Your task to perform on an android device: Open calendar and show me the fourth week of next month Image 0: 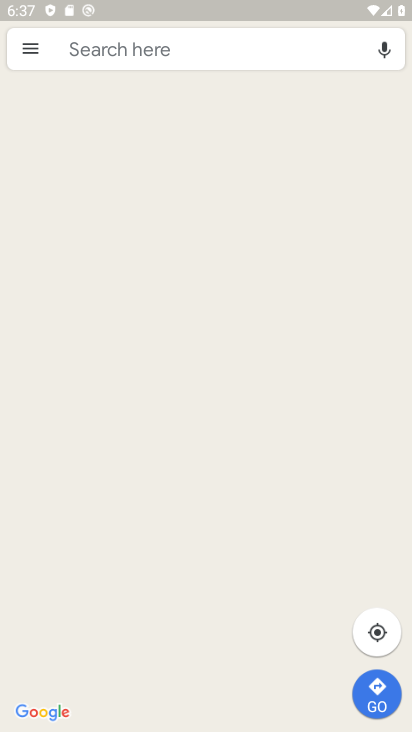
Step 0: press home button
Your task to perform on an android device: Open calendar and show me the fourth week of next month Image 1: 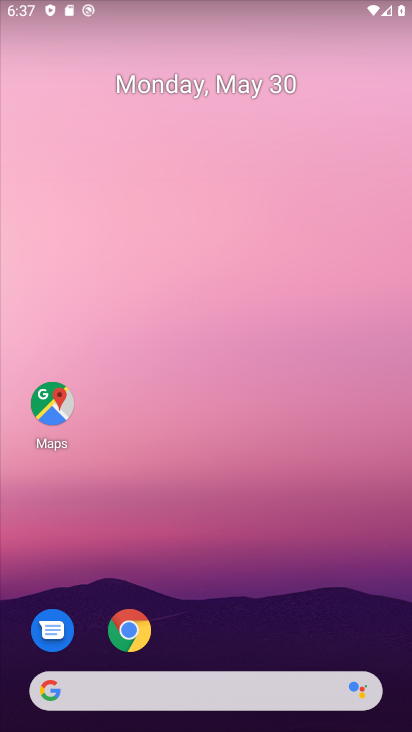
Step 1: drag from (311, 601) to (272, 38)
Your task to perform on an android device: Open calendar and show me the fourth week of next month Image 2: 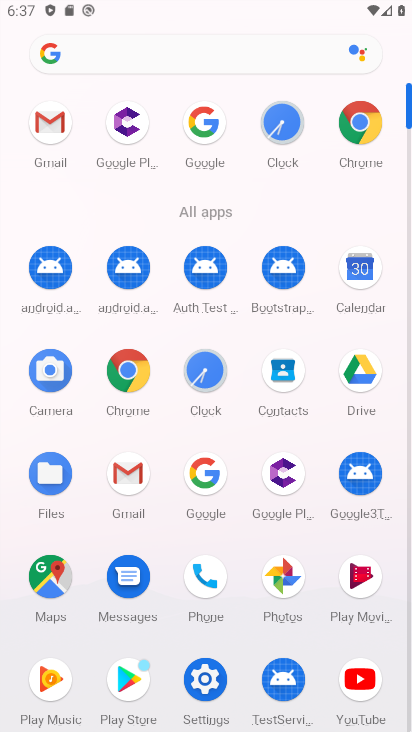
Step 2: click (348, 264)
Your task to perform on an android device: Open calendar and show me the fourth week of next month Image 3: 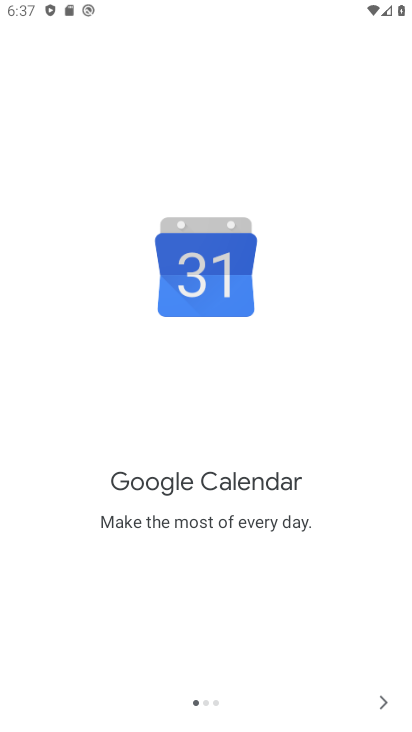
Step 3: click (384, 703)
Your task to perform on an android device: Open calendar and show me the fourth week of next month Image 4: 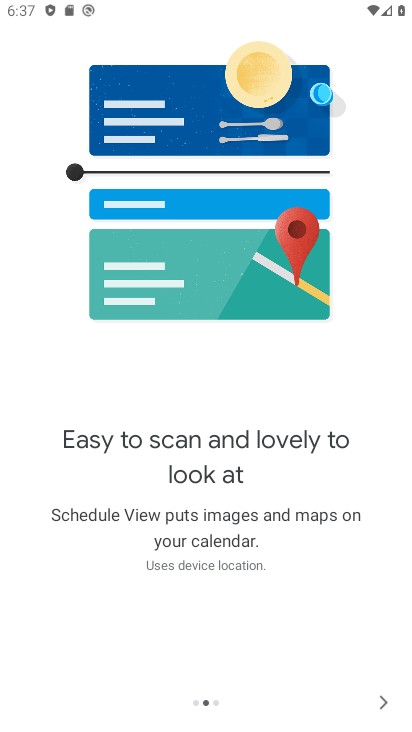
Step 4: click (384, 703)
Your task to perform on an android device: Open calendar and show me the fourth week of next month Image 5: 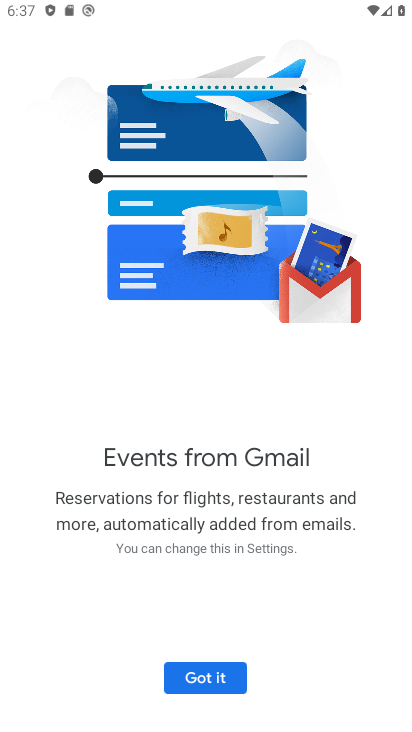
Step 5: click (384, 703)
Your task to perform on an android device: Open calendar and show me the fourth week of next month Image 6: 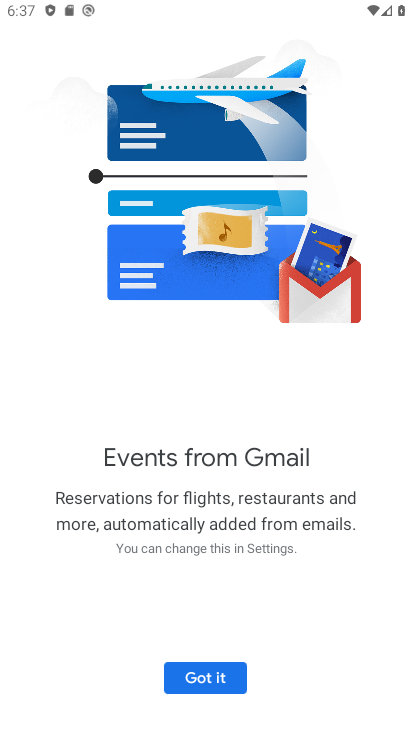
Step 6: click (243, 664)
Your task to perform on an android device: Open calendar and show me the fourth week of next month Image 7: 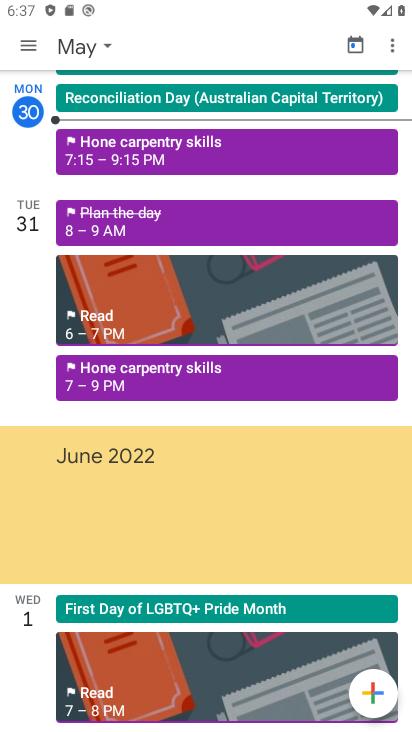
Step 7: click (84, 36)
Your task to perform on an android device: Open calendar and show me the fourth week of next month Image 8: 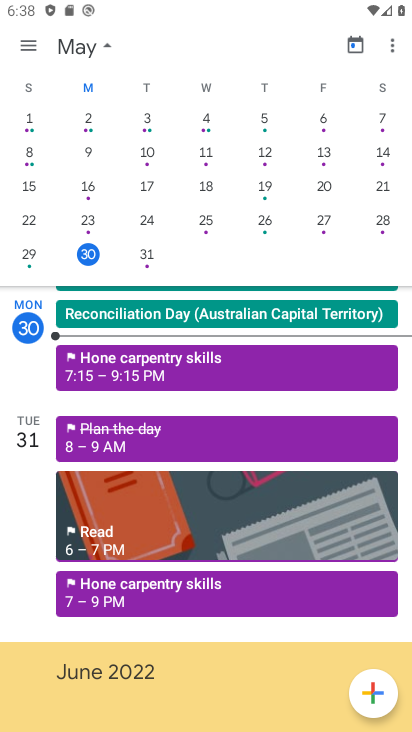
Step 8: drag from (355, 202) to (27, 178)
Your task to perform on an android device: Open calendar and show me the fourth week of next month Image 9: 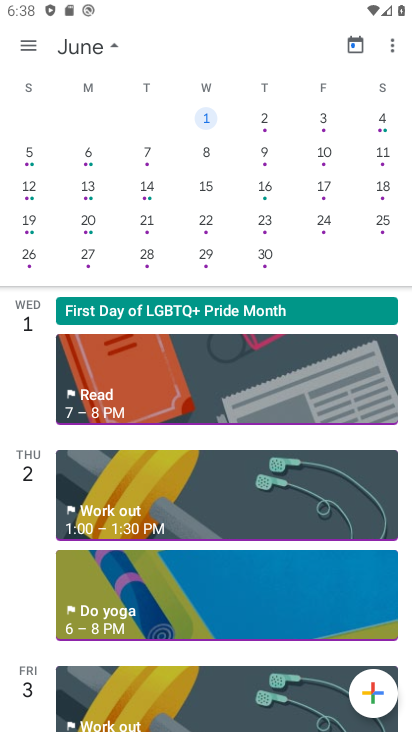
Step 9: click (262, 257)
Your task to perform on an android device: Open calendar and show me the fourth week of next month Image 10: 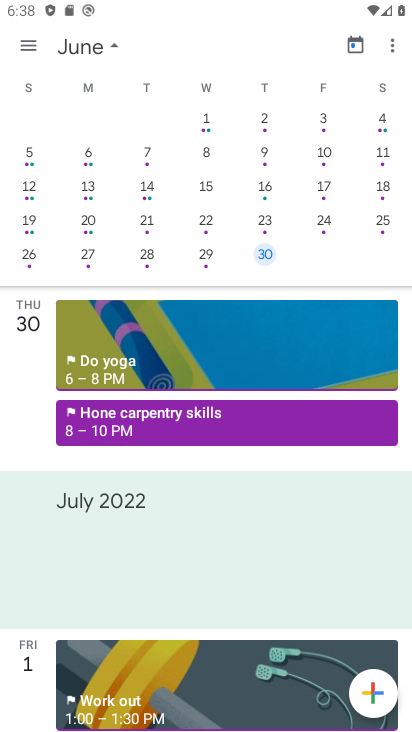
Step 10: task complete